Your task to perform on an android device: Go to ESPN.com Image 0: 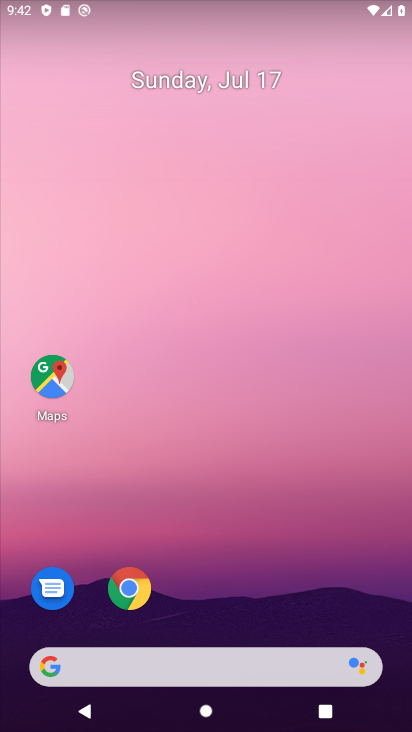
Step 0: drag from (201, 646) to (261, 2)
Your task to perform on an android device: Go to ESPN.com Image 1: 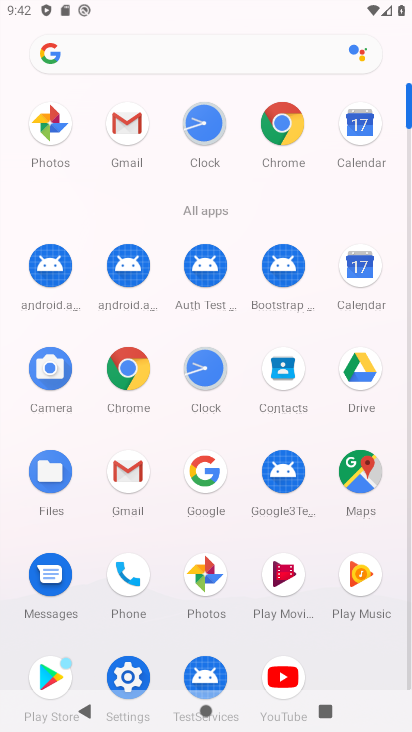
Step 1: click (124, 379)
Your task to perform on an android device: Go to ESPN.com Image 2: 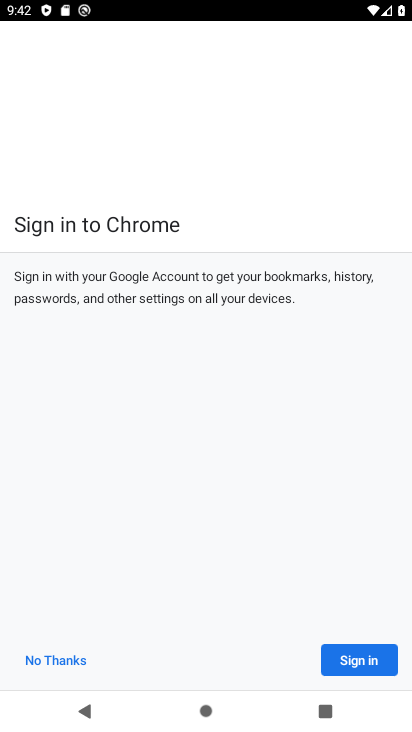
Step 2: click (342, 656)
Your task to perform on an android device: Go to ESPN.com Image 3: 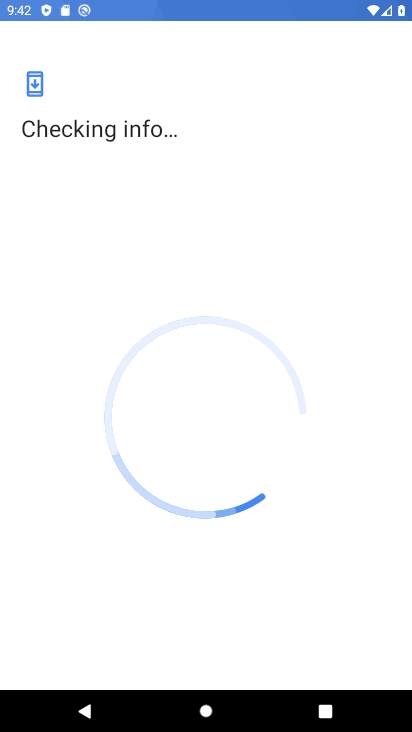
Step 3: press back button
Your task to perform on an android device: Go to ESPN.com Image 4: 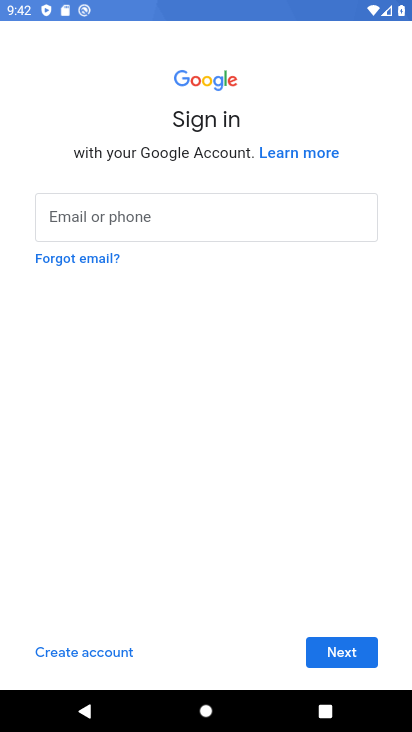
Step 4: press back button
Your task to perform on an android device: Go to ESPN.com Image 5: 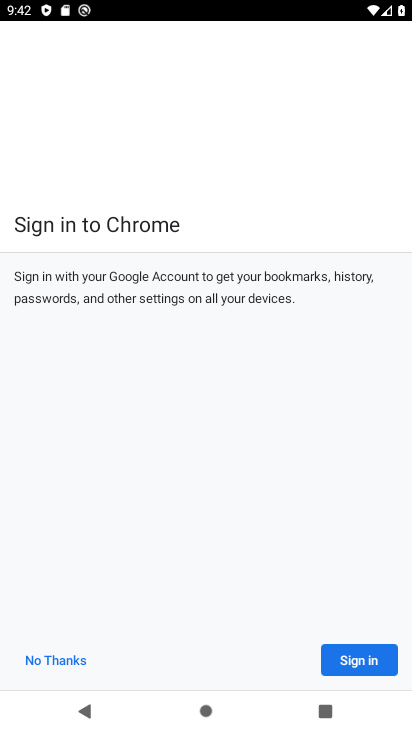
Step 5: click (61, 660)
Your task to perform on an android device: Go to ESPN.com Image 6: 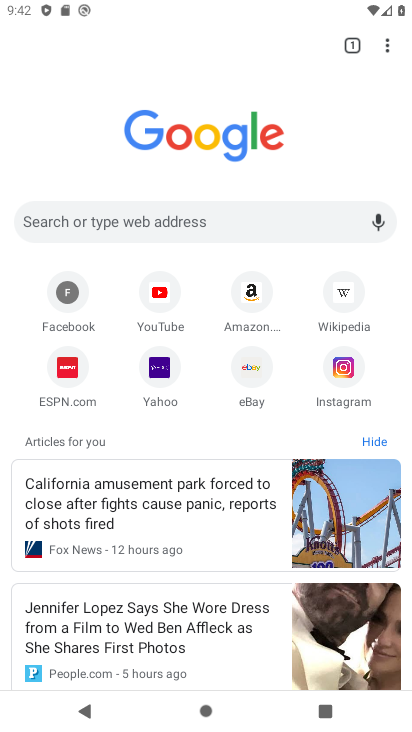
Step 6: click (90, 368)
Your task to perform on an android device: Go to ESPN.com Image 7: 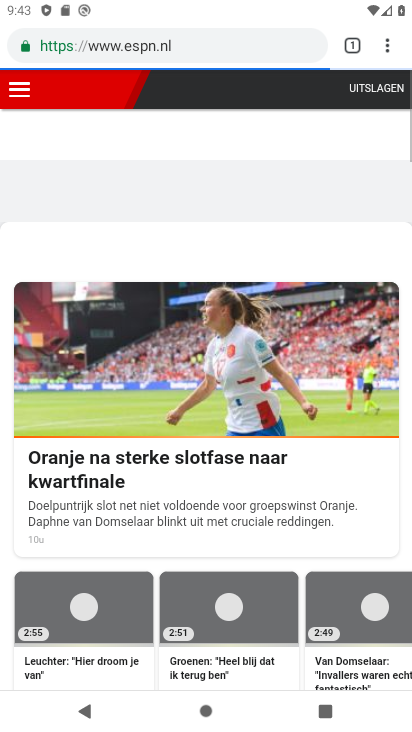
Step 7: task complete